Your task to perform on an android device: allow notifications from all sites in the chrome app Image 0: 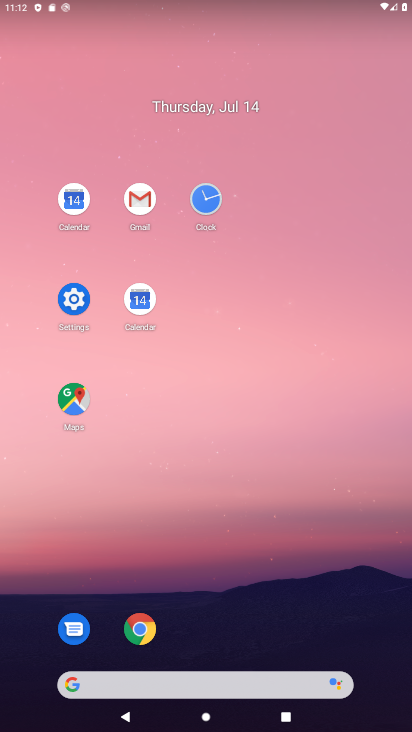
Step 0: click (130, 627)
Your task to perform on an android device: allow notifications from all sites in the chrome app Image 1: 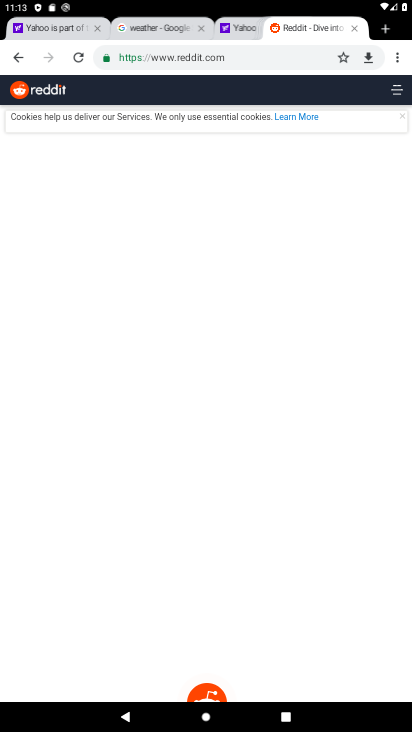
Step 1: click (385, 22)
Your task to perform on an android device: allow notifications from all sites in the chrome app Image 2: 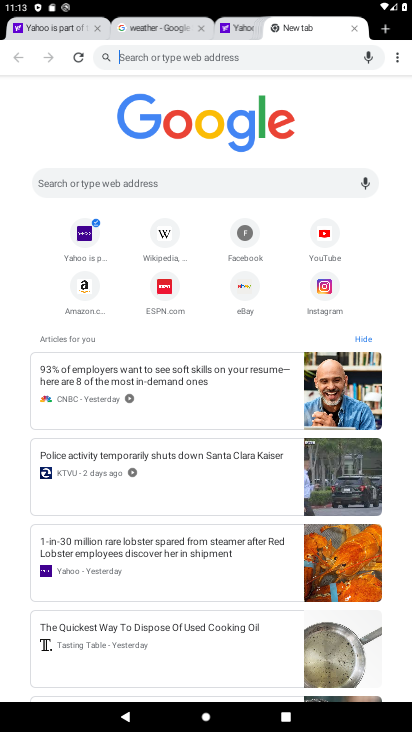
Step 2: click (407, 64)
Your task to perform on an android device: allow notifications from all sites in the chrome app Image 3: 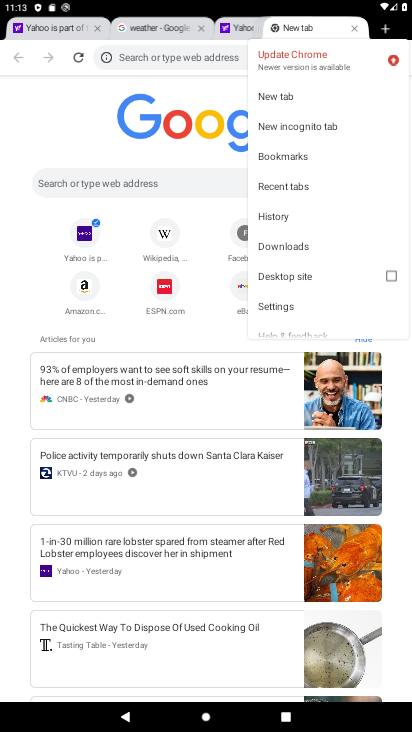
Step 3: click (288, 304)
Your task to perform on an android device: allow notifications from all sites in the chrome app Image 4: 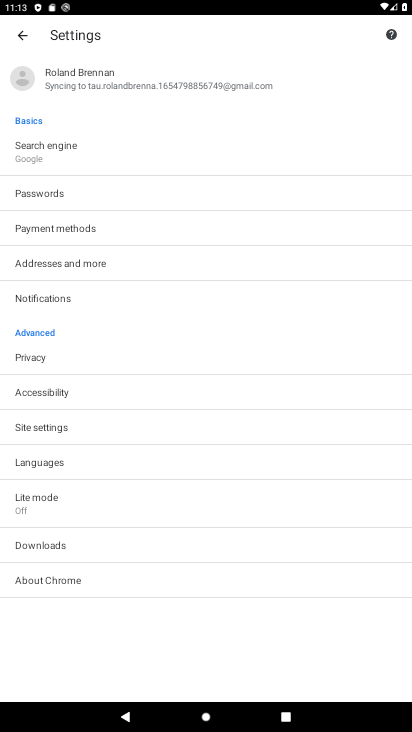
Step 4: click (129, 427)
Your task to perform on an android device: allow notifications from all sites in the chrome app Image 5: 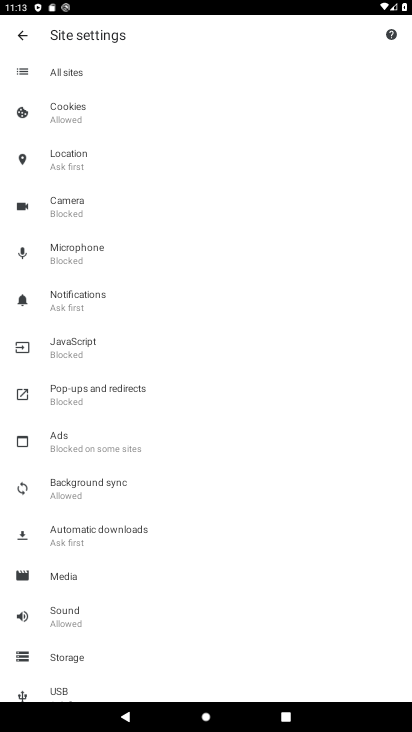
Step 5: click (163, 306)
Your task to perform on an android device: allow notifications from all sites in the chrome app Image 6: 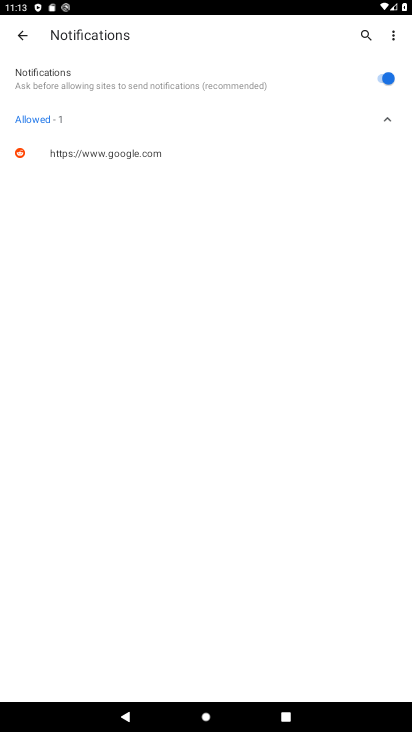
Step 6: task complete